Your task to perform on an android device: turn off javascript in the chrome app Image 0: 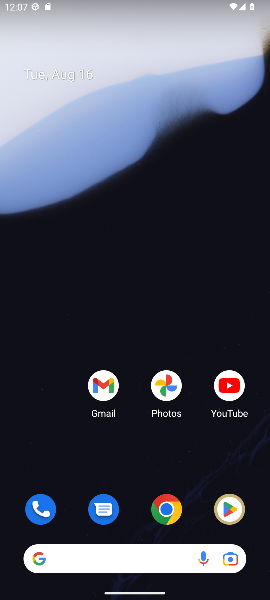
Step 0: click (170, 517)
Your task to perform on an android device: turn off javascript in the chrome app Image 1: 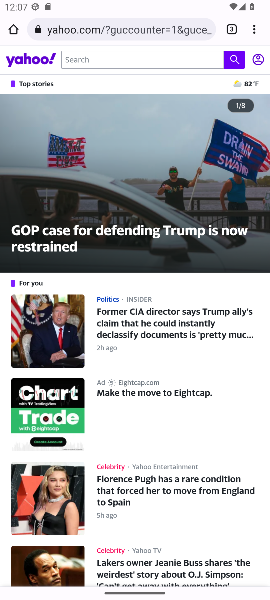
Step 1: drag from (260, 27) to (177, 376)
Your task to perform on an android device: turn off javascript in the chrome app Image 2: 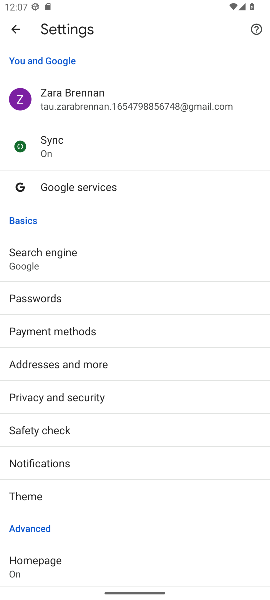
Step 2: drag from (109, 521) to (132, 115)
Your task to perform on an android device: turn off javascript in the chrome app Image 3: 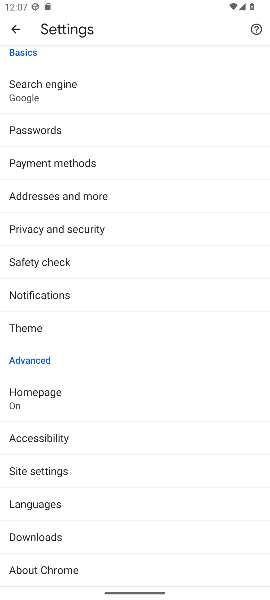
Step 3: click (34, 467)
Your task to perform on an android device: turn off javascript in the chrome app Image 4: 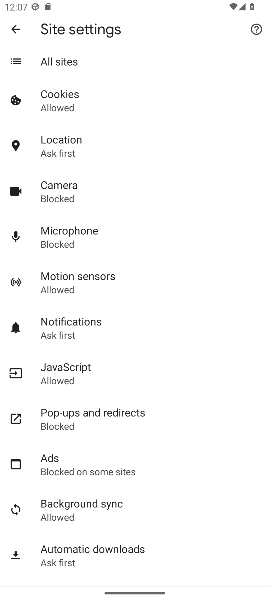
Step 4: click (73, 374)
Your task to perform on an android device: turn off javascript in the chrome app Image 5: 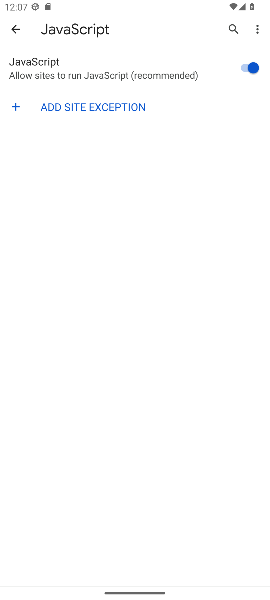
Step 5: task complete